Your task to perform on an android device: toggle improve location accuracy Image 0: 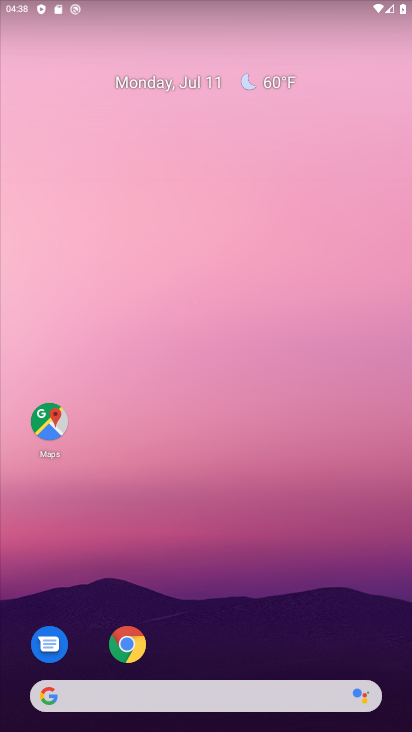
Step 0: drag from (256, 670) to (214, 313)
Your task to perform on an android device: toggle improve location accuracy Image 1: 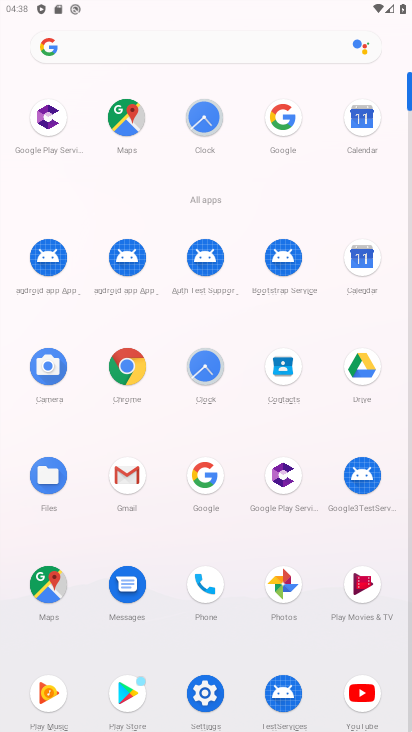
Step 1: click (216, 693)
Your task to perform on an android device: toggle improve location accuracy Image 2: 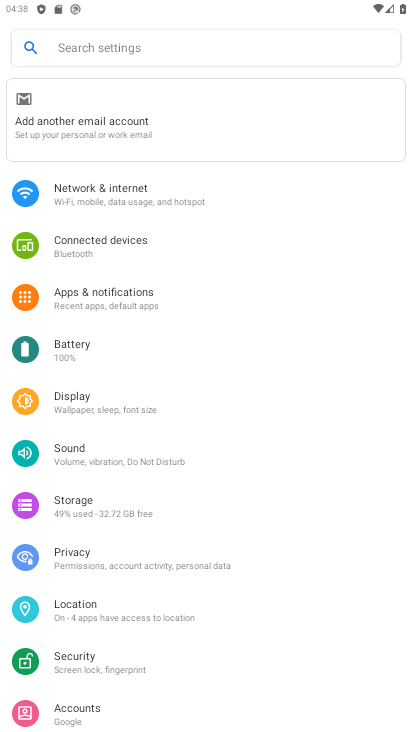
Step 2: click (80, 615)
Your task to perform on an android device: toggle improve location accuracy Image 3: 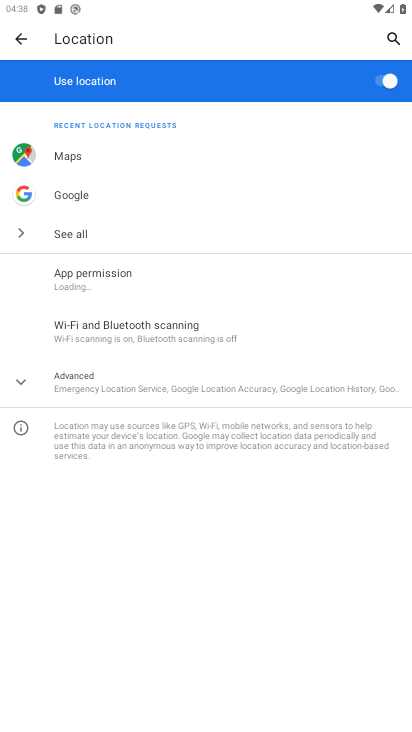
Step 3: click (95, 377)
Your task to perform on an android device: toggle improve location accuracy Image 4: 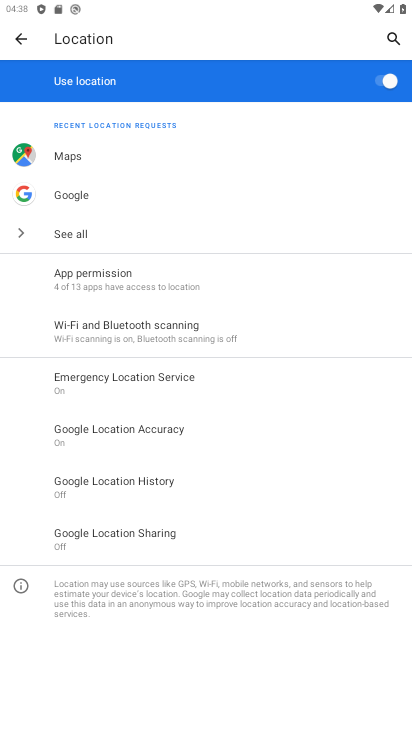
Step 4: click (134, 426)
Your task to perform on an android device: toggle improve location accuracy Image 5: 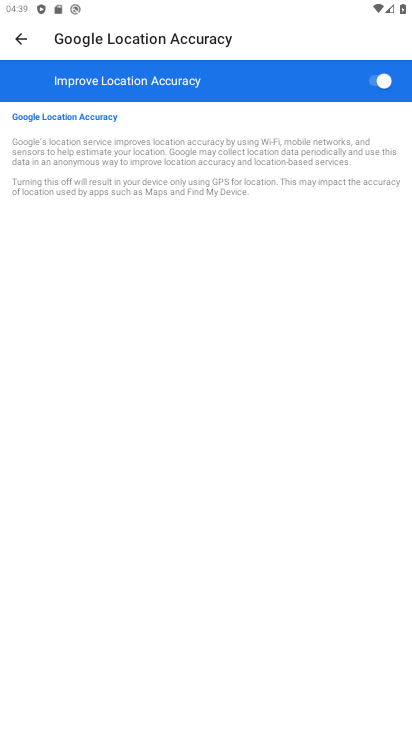
Step 5: click (380, 77)
Your task to perform on an android device: toggle improve location accuracy Image 6: 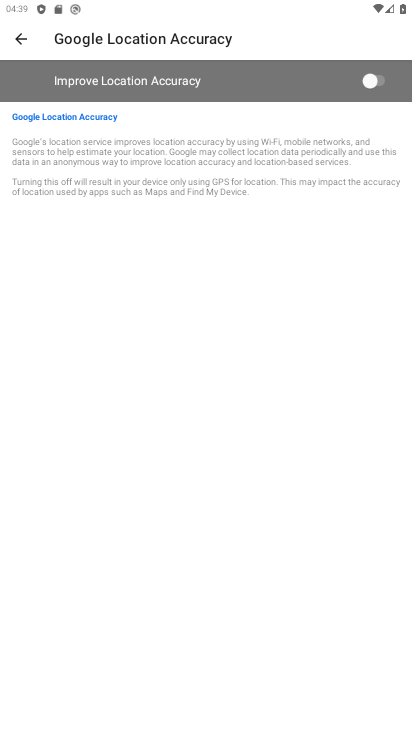
Step 6: task complete